Your task to perform on an android device: turn off notifications in google photos Image 0: 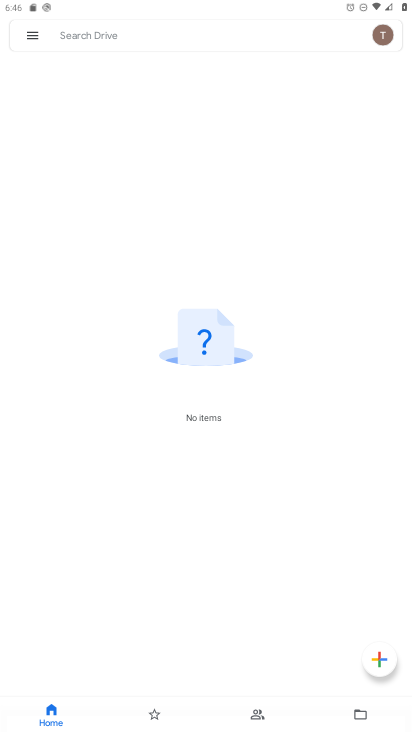
Step 0: press home button
Your task to perform on an android device: turn off notifications in google photos Image 1: 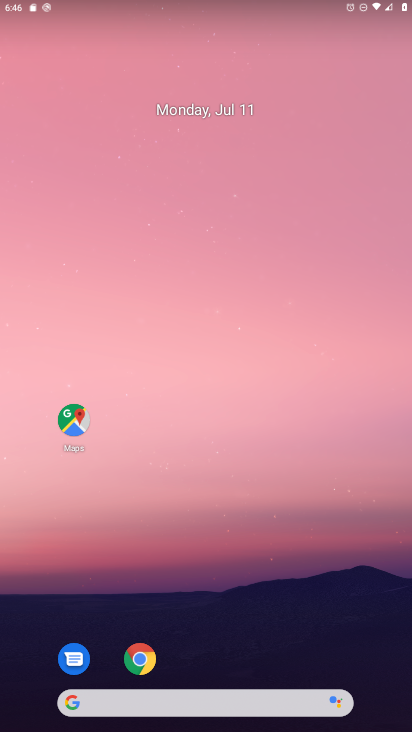
Step 1: drag from (346, 678) to (319, 74)
Your task to perform on an android device: turn off notifications in google photos Image 2: 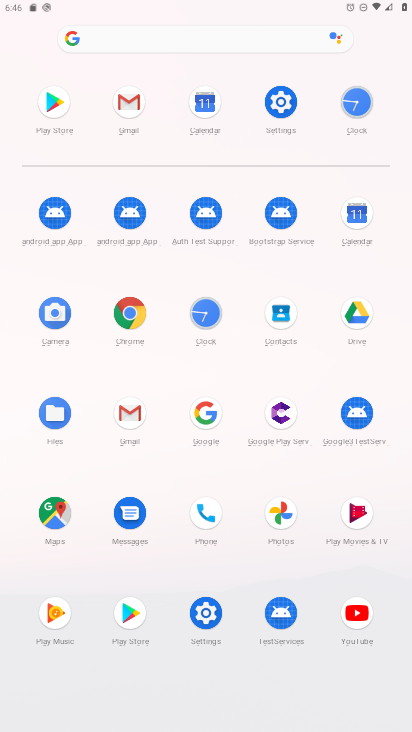
Step 2: click (280, 513)
Your task to perform on an android device: turn off notifications in google photos Image 3: 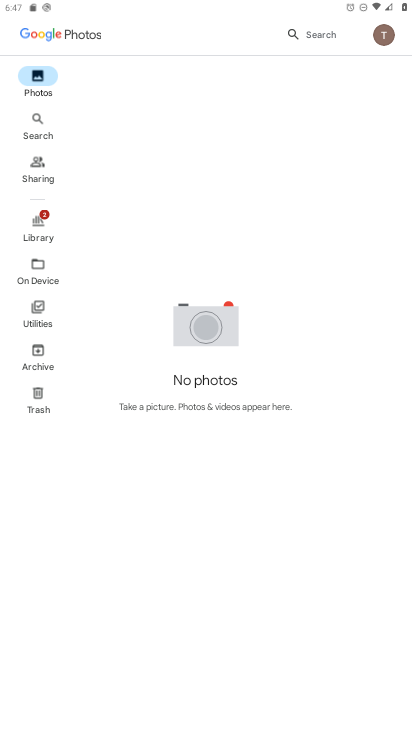
Step 3: click (389, 35)
Your task to perform on an android device: turn off notifications in google photos Image 4: 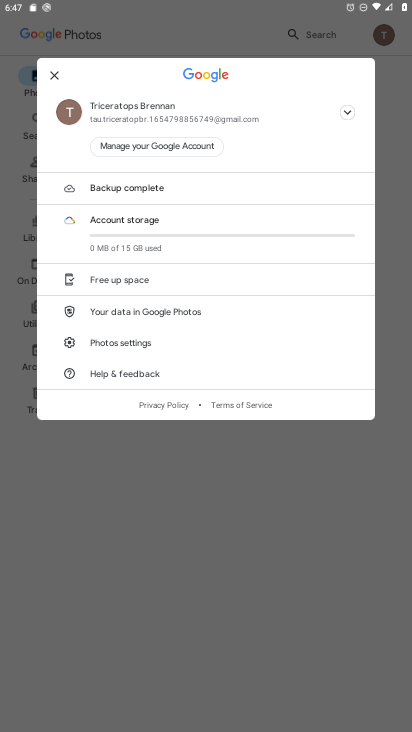
Step 4: click (114, 341)
Your task to perform on an android device: turn off notifications in google photos Image 5: 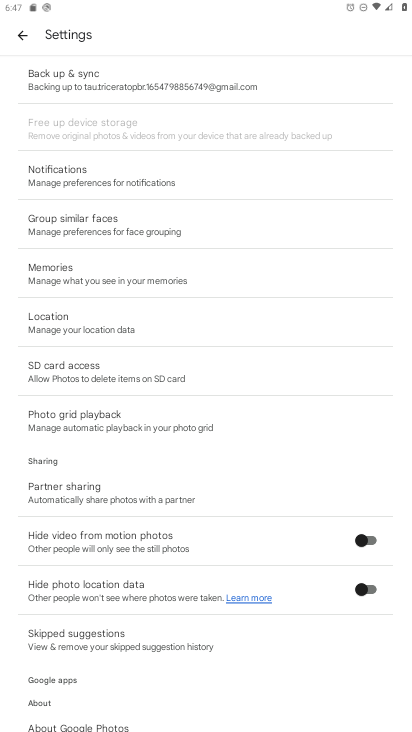
Step 5: click (66, 175)
Your task to perform on an android device: turn off notifications in google photos Image 6: 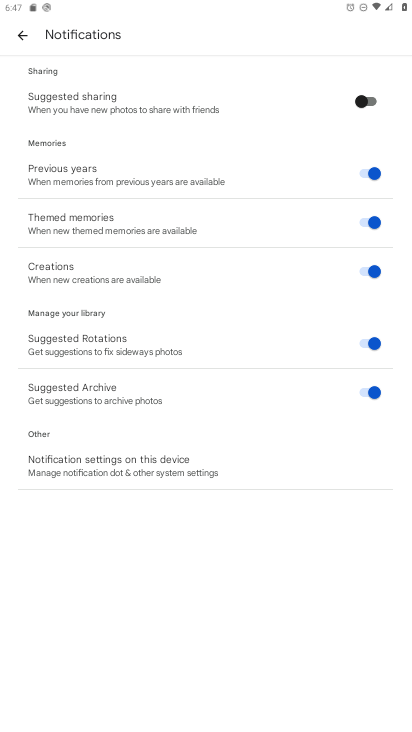
Step 6: click (88, 449)
Your task to perform on an android device: turn off notifications in google photos Image 7: 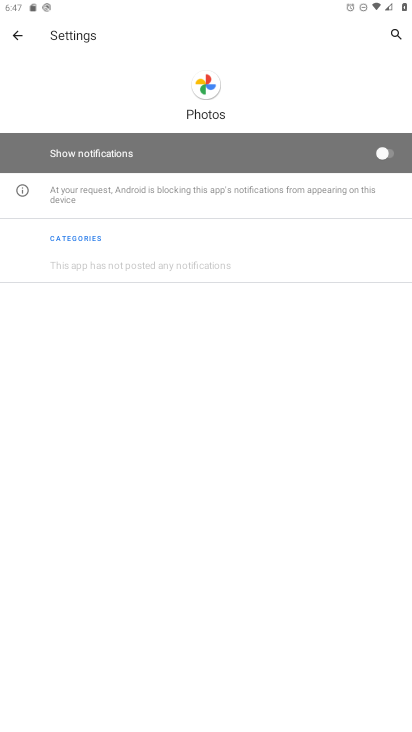
Step 7: task complete